Your task to perform on an android device: Clear the cart on ebay. Add razer huntsman to the cart on ebay Image 0: 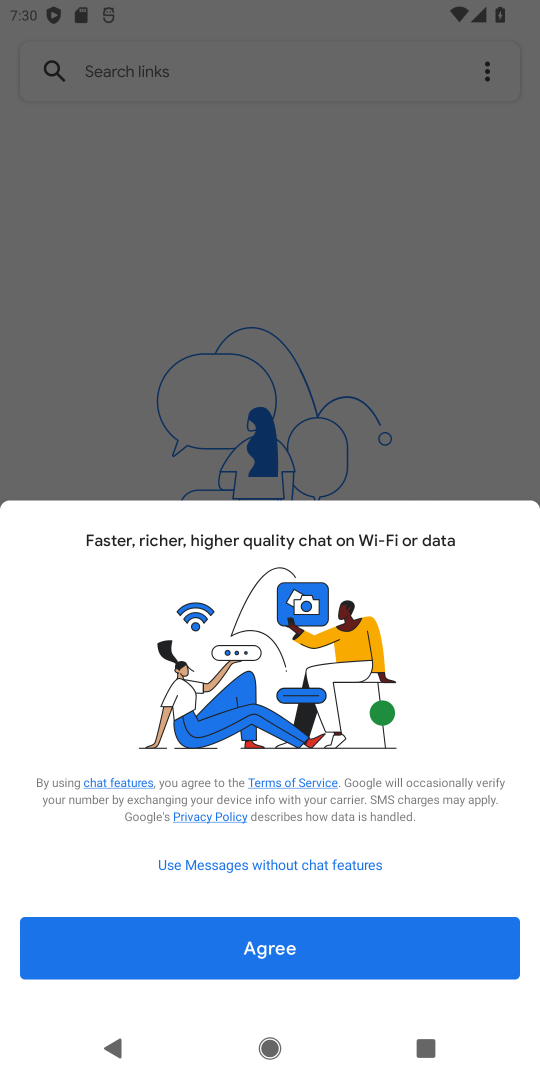
Step 0: press home button
Your task to perform on an android device: Clear the cart on ebay. Add razer huntsman to the cart on ebay Image 1: 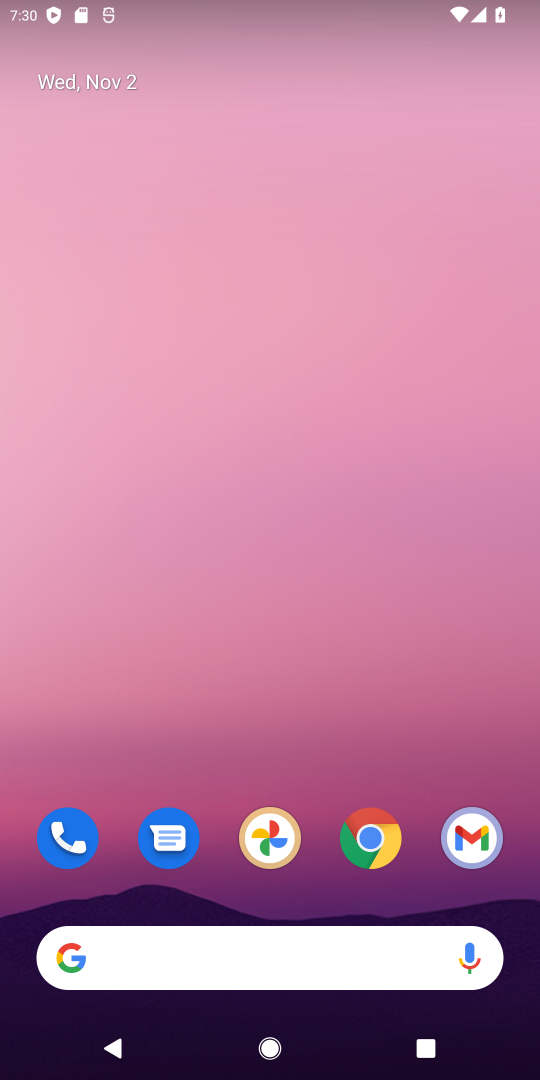
Step 1: click (387, 845)
Your task to perform on an android device: Clear the cart on ebay. Add razer huntsman to the cart on ebay Image 2: 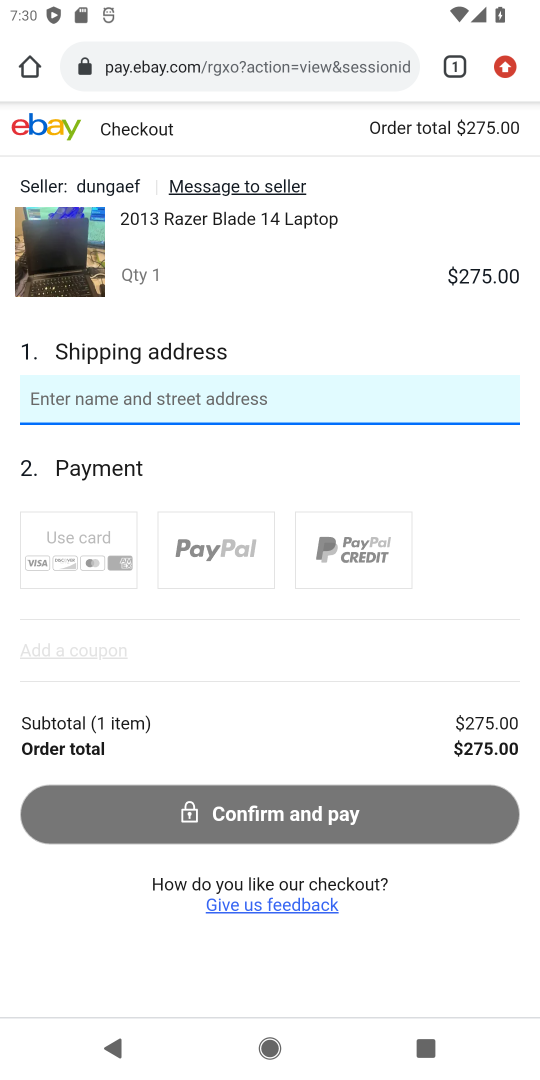
Step 2: click (281, 77)
Your task to perform on an android device: Clear the cart on ebay. Add razer huntsman to the cart on ebay Image 3: 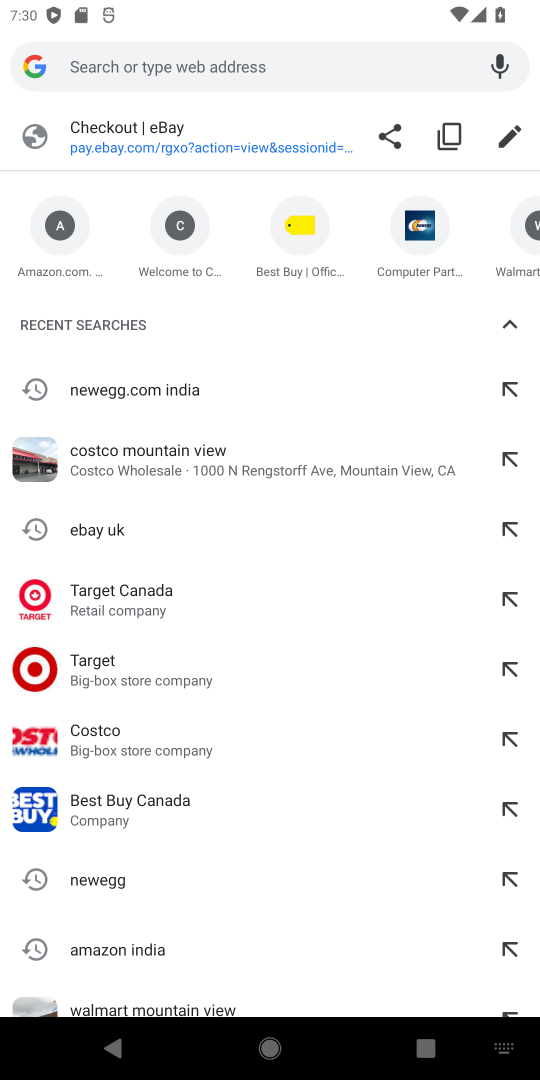
Step 3: type "ebay"
Your task to perform on an android device: Clear the cart on ebay. Add razer huntsman to the cart on ebay Image 4: 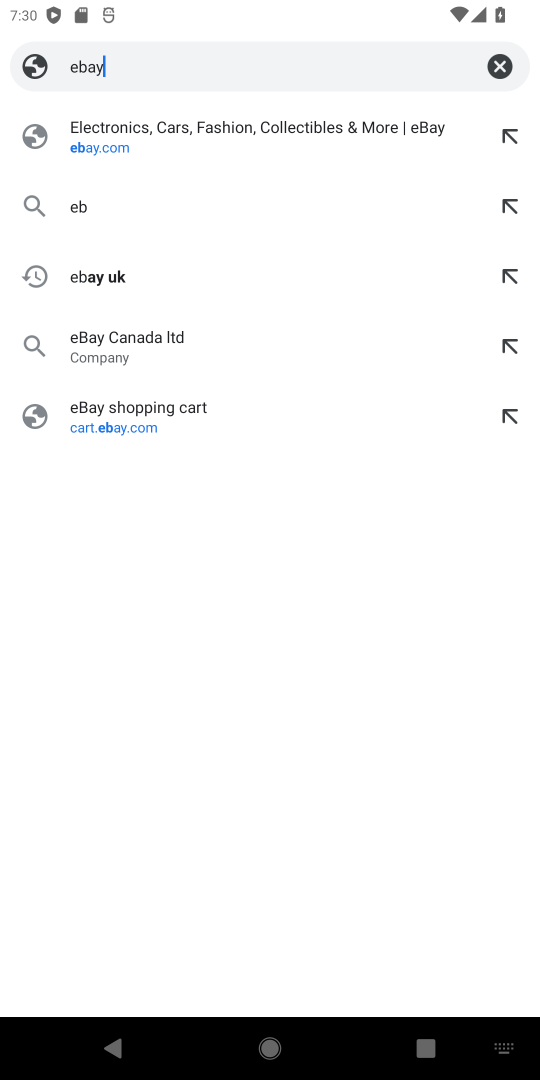
Step 4: type ""
Your task to perform on an android device: Clear the cart on ebay. Add razer huntsman to the cart on ebay Image 5: 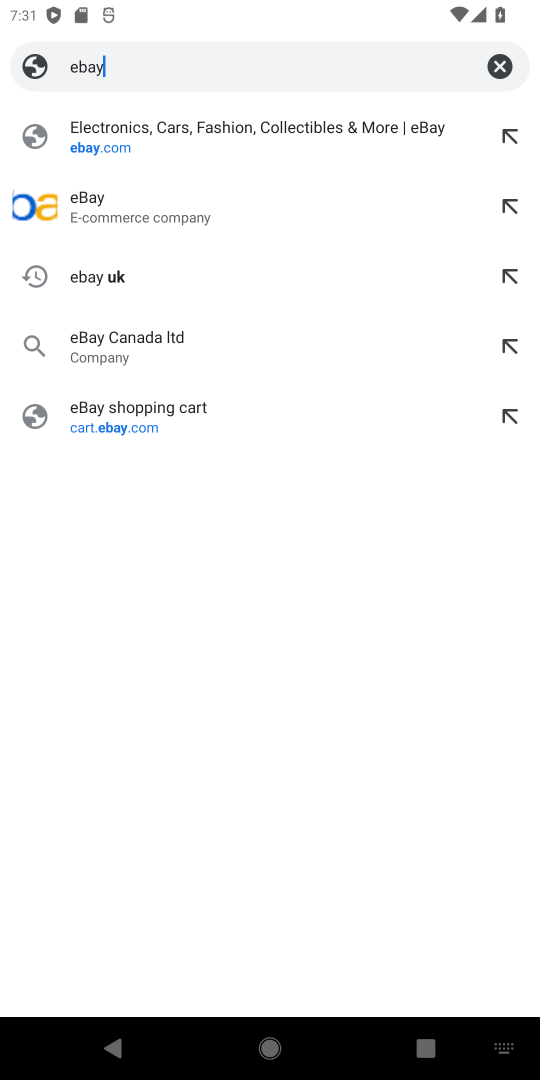
Step 5: press enter
Your task to perform on an android device: Clear the cart on ebay. Add razer huntsman to the cart on ebay Image 6: 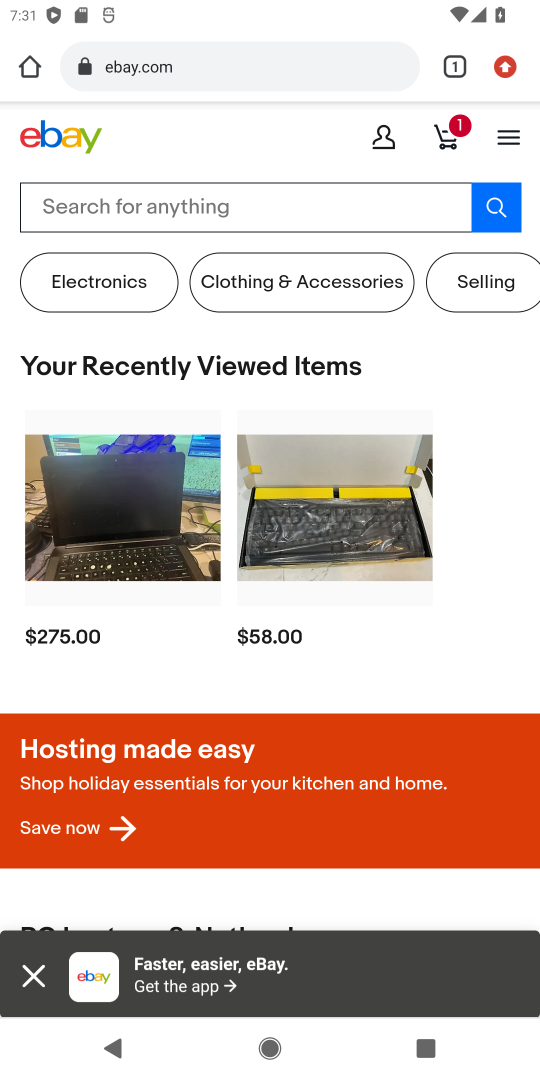
Step 6: click (446, 132)
Your task to perform on an android device: Clear the cart on ebay. Add razer huntsman to the cart on ebay Image 7: 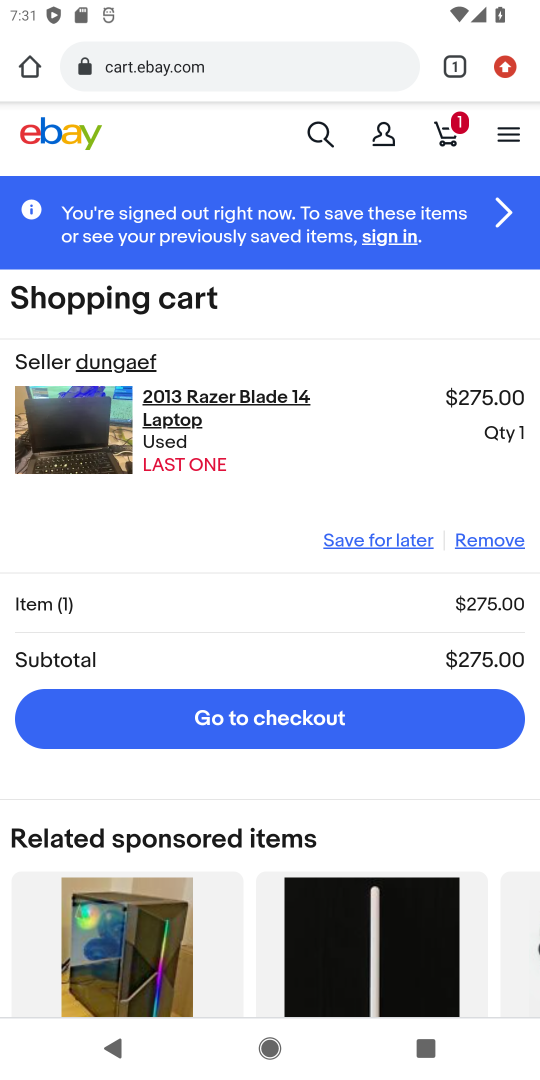
Step 7: click (486, 539)
Your task to perform on an android device: Clear the cart on ebay. Add razer huntsman to the cart on ebay Image 8: 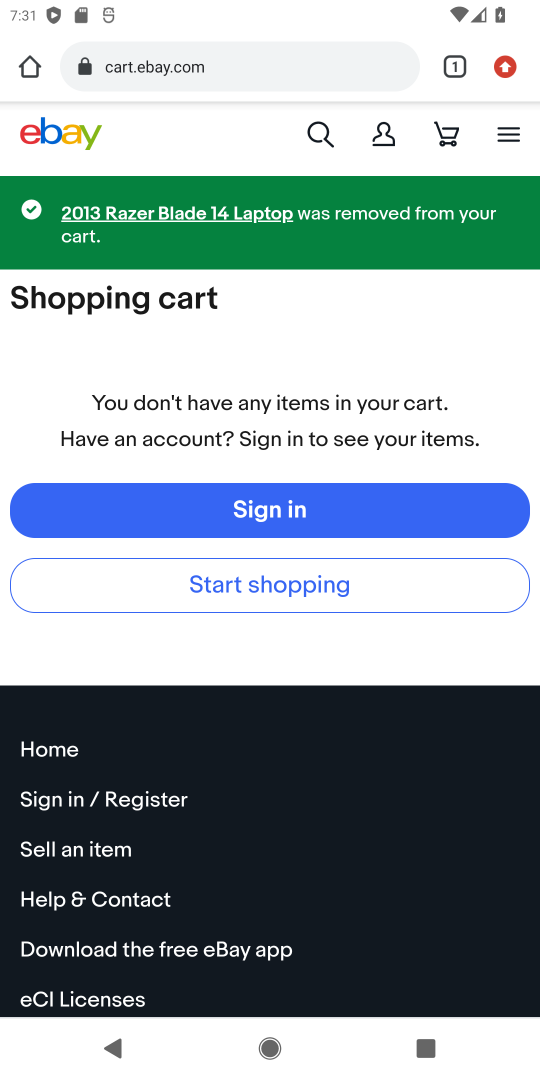
Step 8: click (316, 140)
Your task to perform on an android device: Clear the cart on ebay. Add razer huntsman to the cart on ebay Image 9: 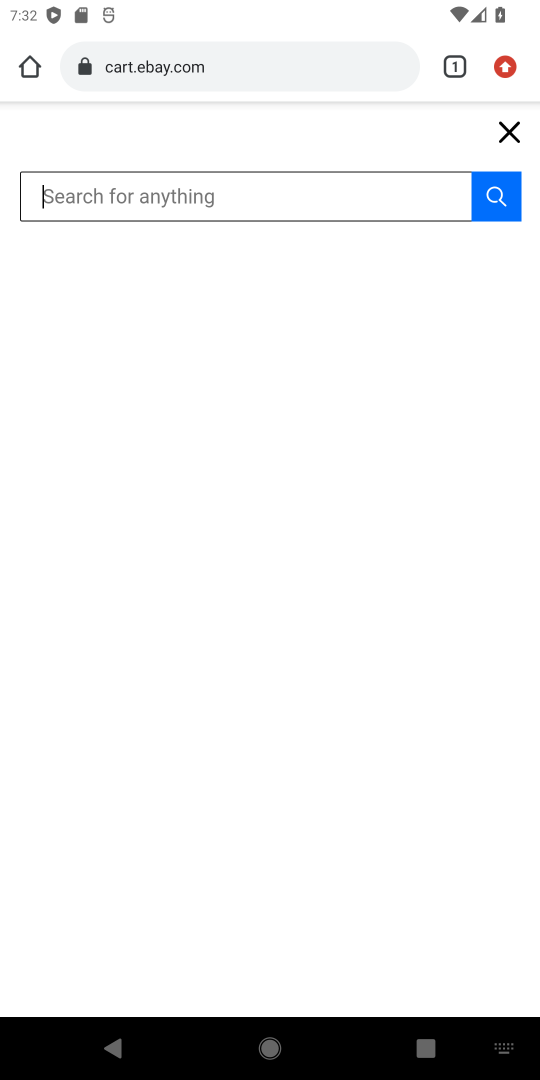
Step 9: type "razer huntsman"
Your task to perform on an android device: Clear the cart on ebay. Add razer huntsman to the cart on ebay Image 10: 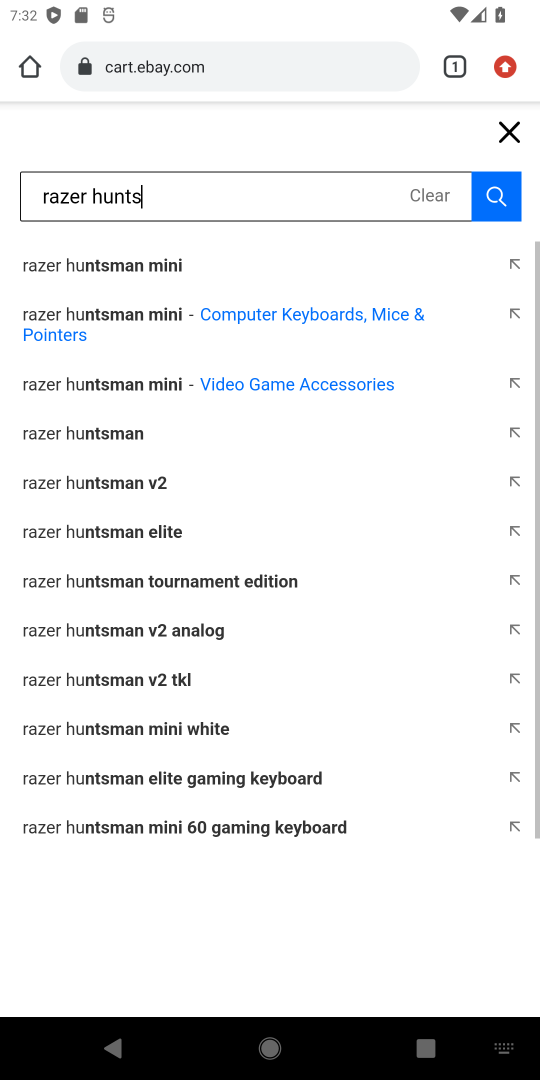
Step 10: type ""
Your task to perform on an android device: Clear the cart on ebay. Add razer huntsman to the cart on ebay Image 11: 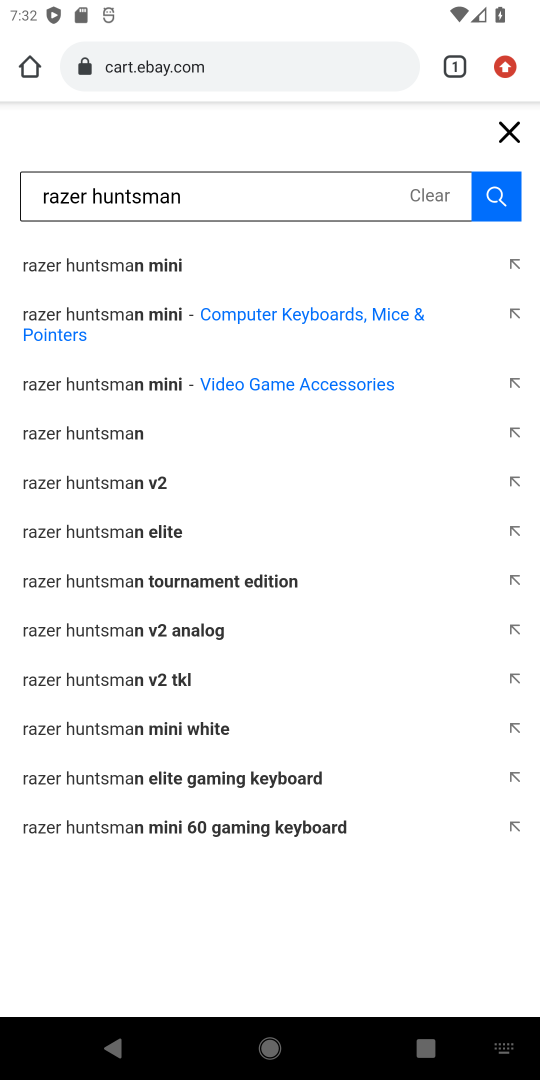
Step 11: click (491, 193)
Your task to perform on an android device: Clear the cart on ebay. Add razer huntsman to the cart on ebay Image 12: 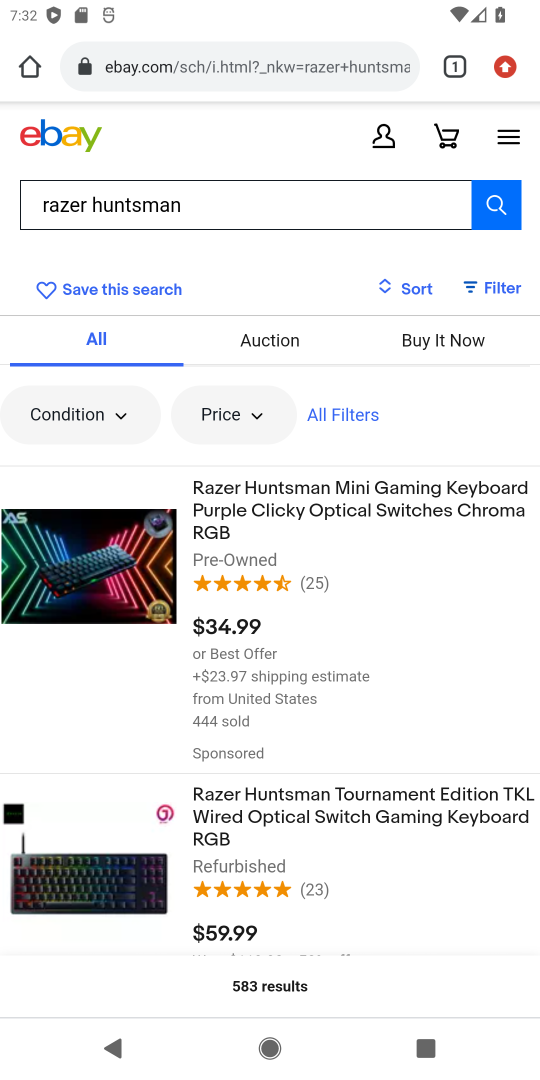
Step 12: click (356, 518)
Your task to perform on an android device: Clear the cart on ebay. Add razer huntsman to the cart on ebay Image 13: 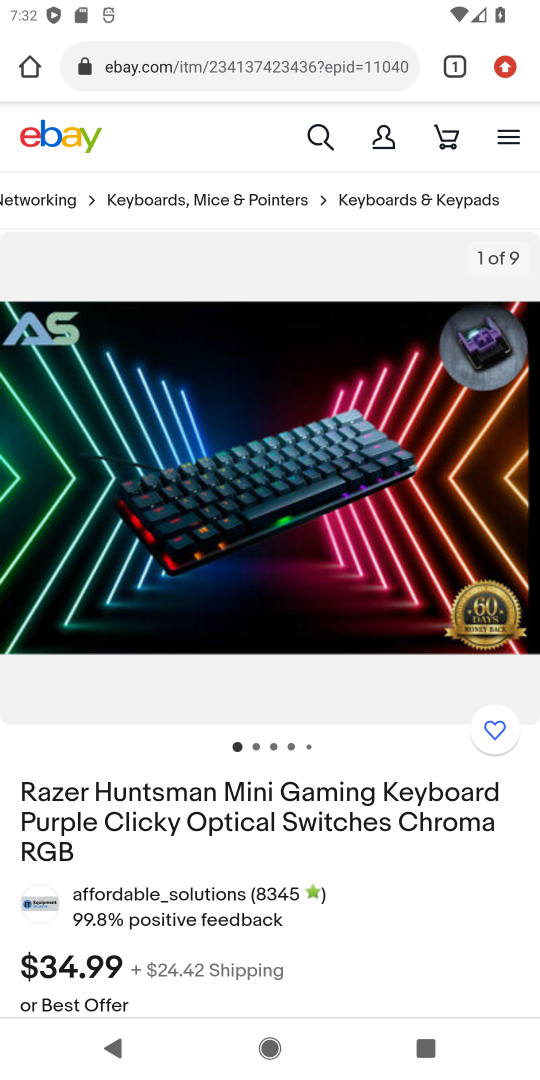
Step 13: drag from (406, 763) to (382, 184)
Your task to perform on an android device: Clear the cart on ebay. Add razer huntsman to the cart on ebay Image 14: 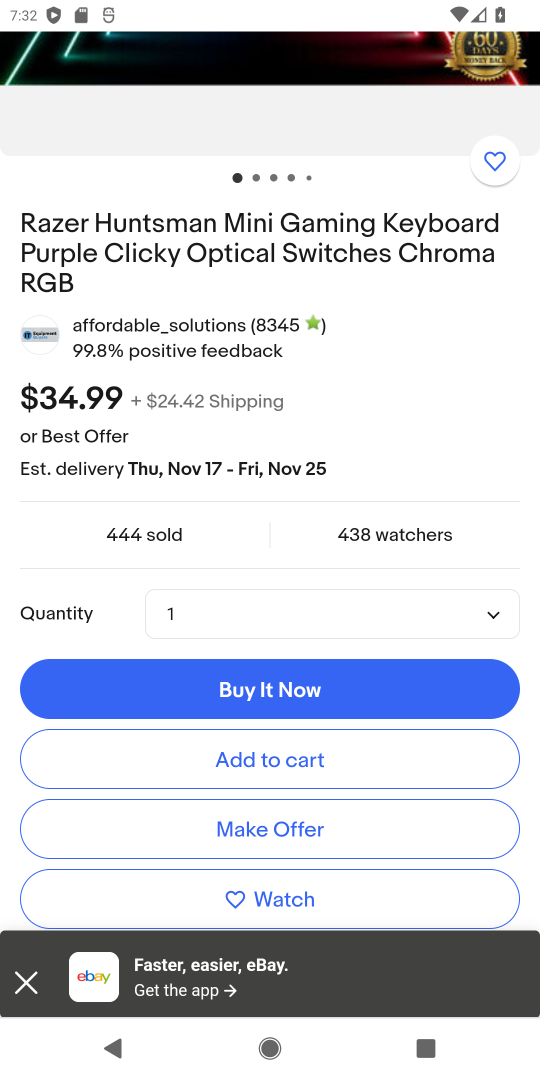
Step 14: click (328, 757)
Your task to perform on an android device: Clear the cart on ebay. Add razer huntsman to the cart on ebay Image 15: 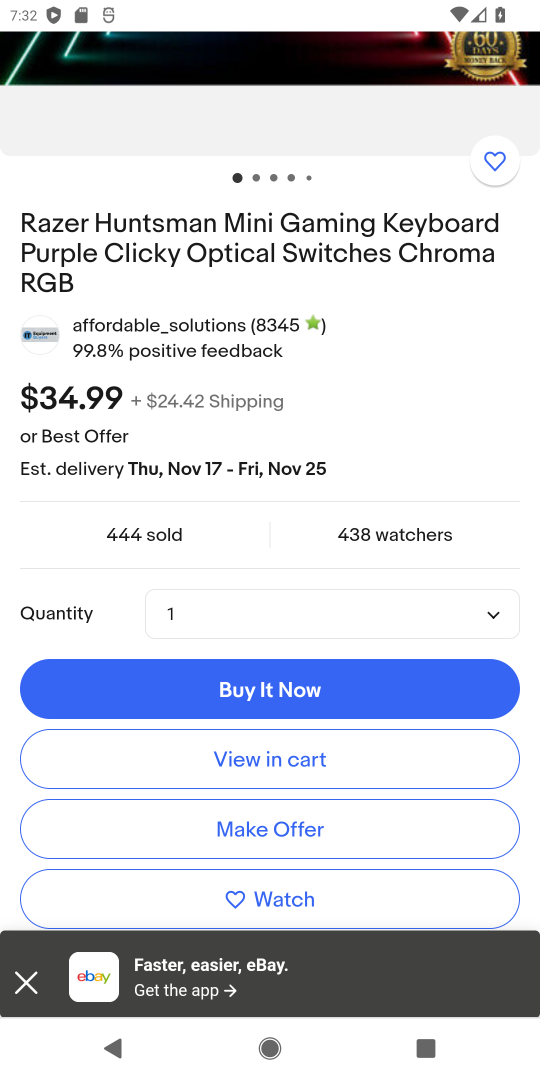
Step 15: click (296, 754)
Your task to perform on an android device: Clear the cart on ebay. Add razer huntsman to the cart on ebay Image 16: 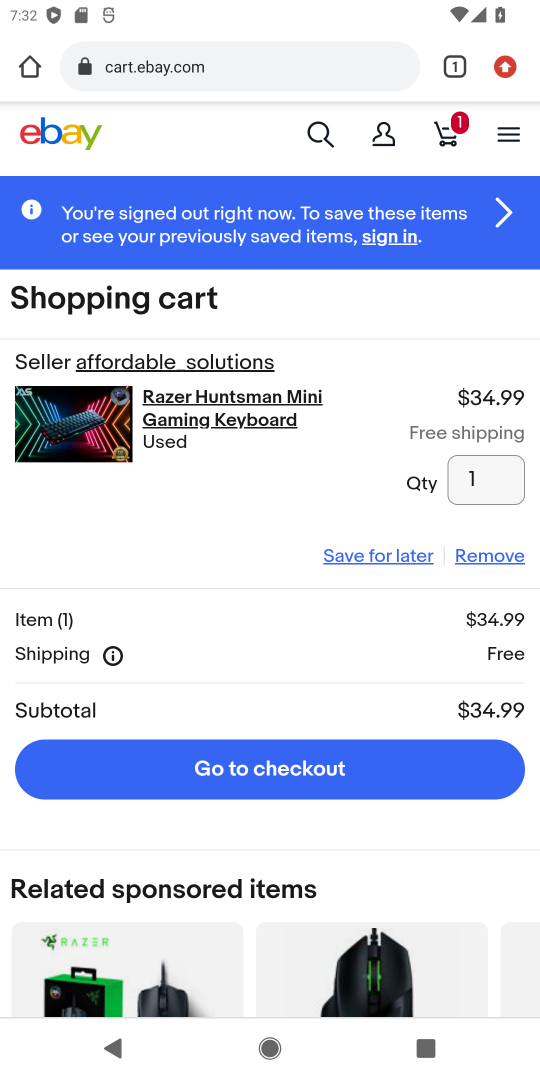
Step 16: task complete